Your task to perform on an android device: Open the Play Movies app and select the watchlist tab. Image 0: 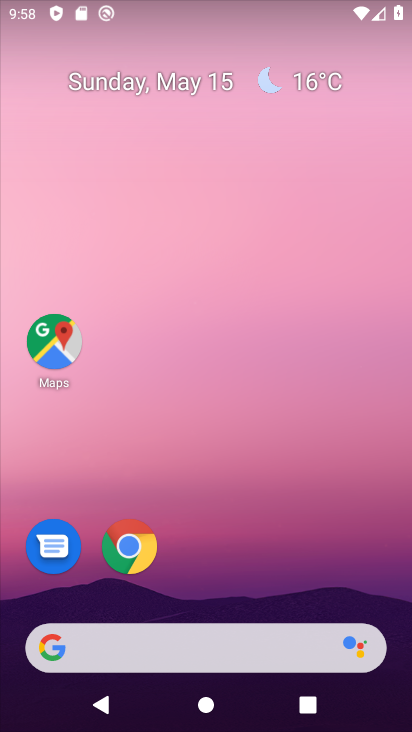
Step 0: drag from (325, 387) to (300, 135)
Your task to perform on an android device: Open the Play Movies app and select the watchlist tab. Image 1: 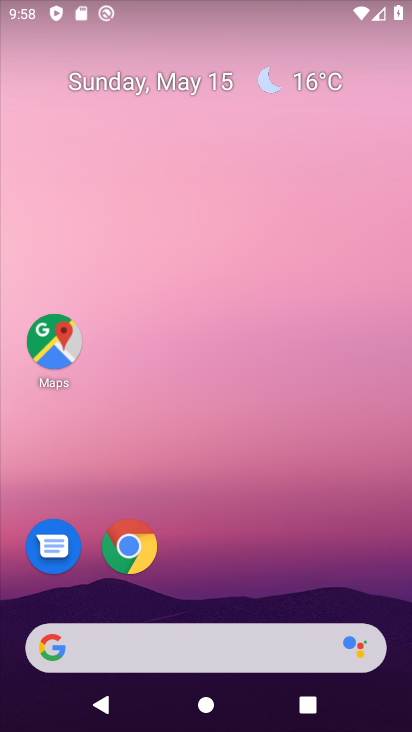
Step 1: drag from (291, 608) to (170, 118)
Your task to perform on an android device: Open the Play Movies app and select the watchlist tab. Image 2: 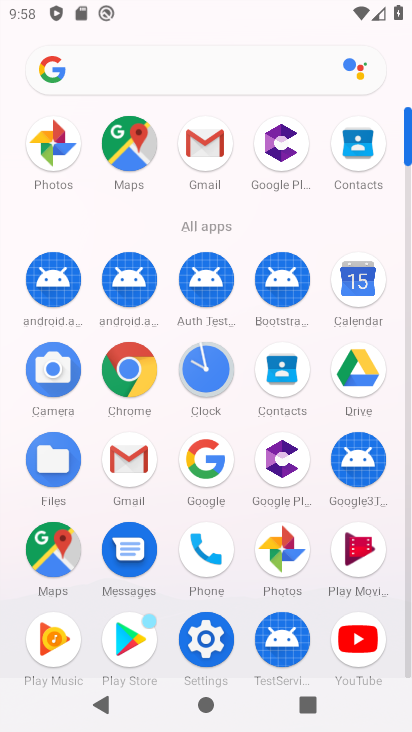
Step 2: click (345, 633)
Your task to perform on an android device: Open the Play Movies app and select the watchlist tab. Image 3: 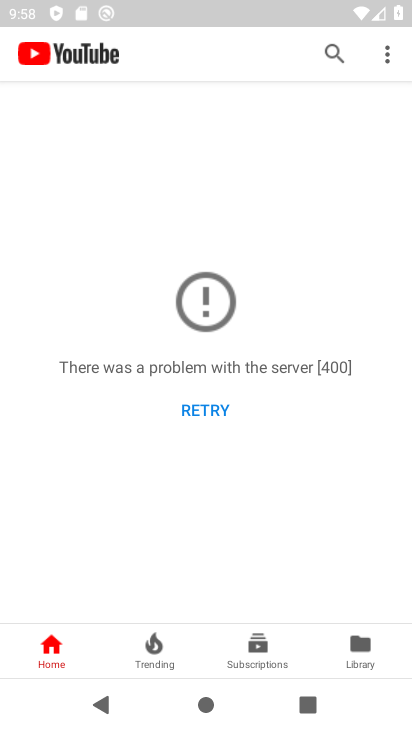
Step 3: task complete